Your task to perform on an android device: Look up the book "The Girl on the Train". Image 0: 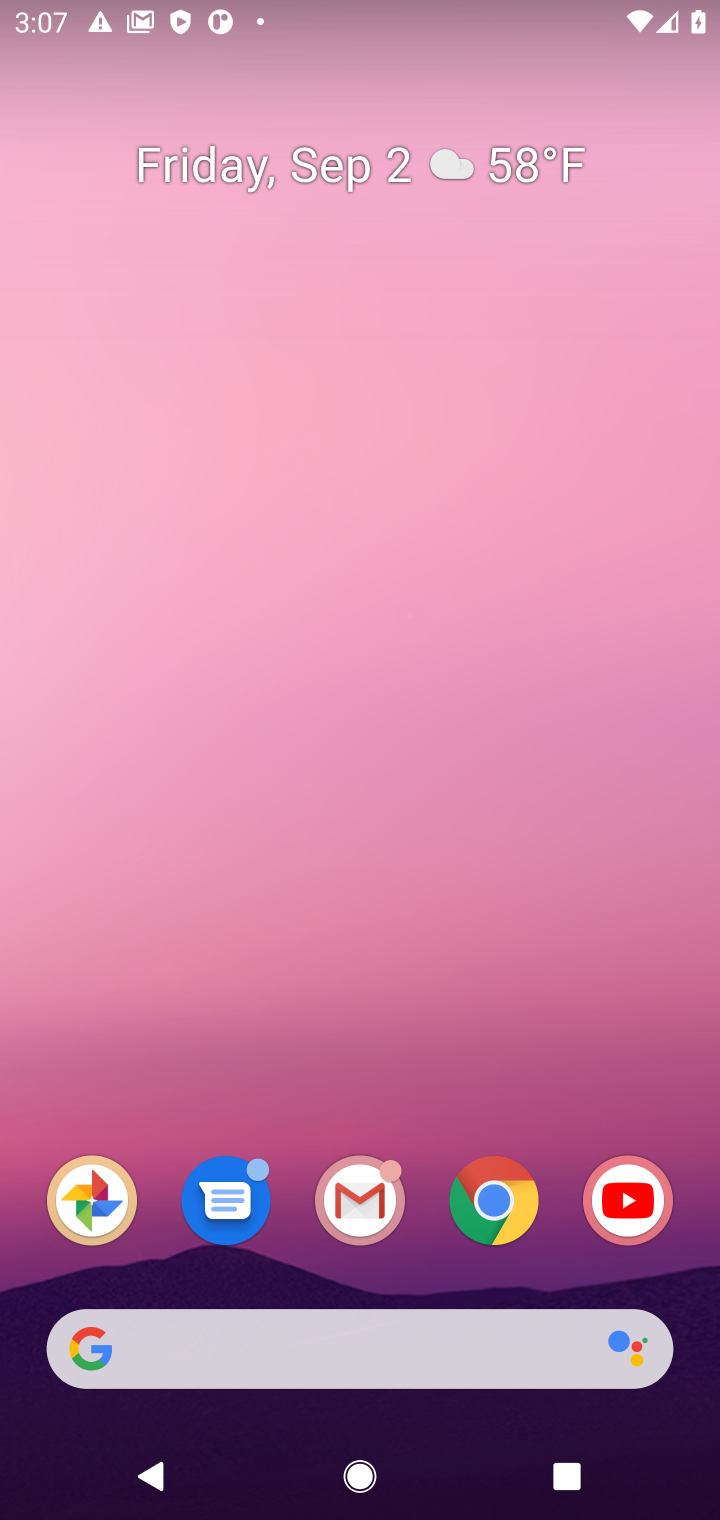
Step 0: click (496, 1212)
Your task to perform on an android device: Look up the book "The Girl on the Train". Image 1: 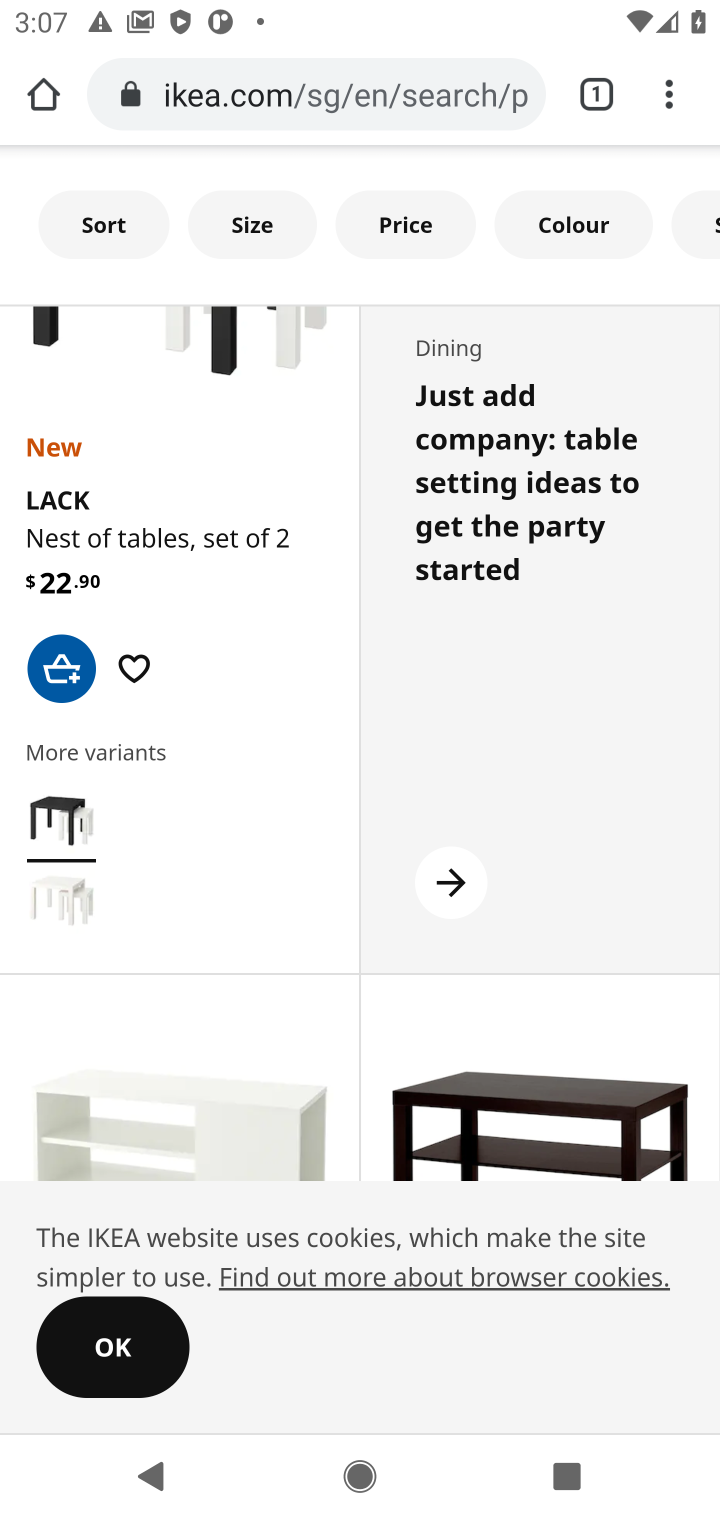
Step 1: click (381, 99)
Your task to perform on an android device: Look up the book "The Girl on the Train". Image 2: 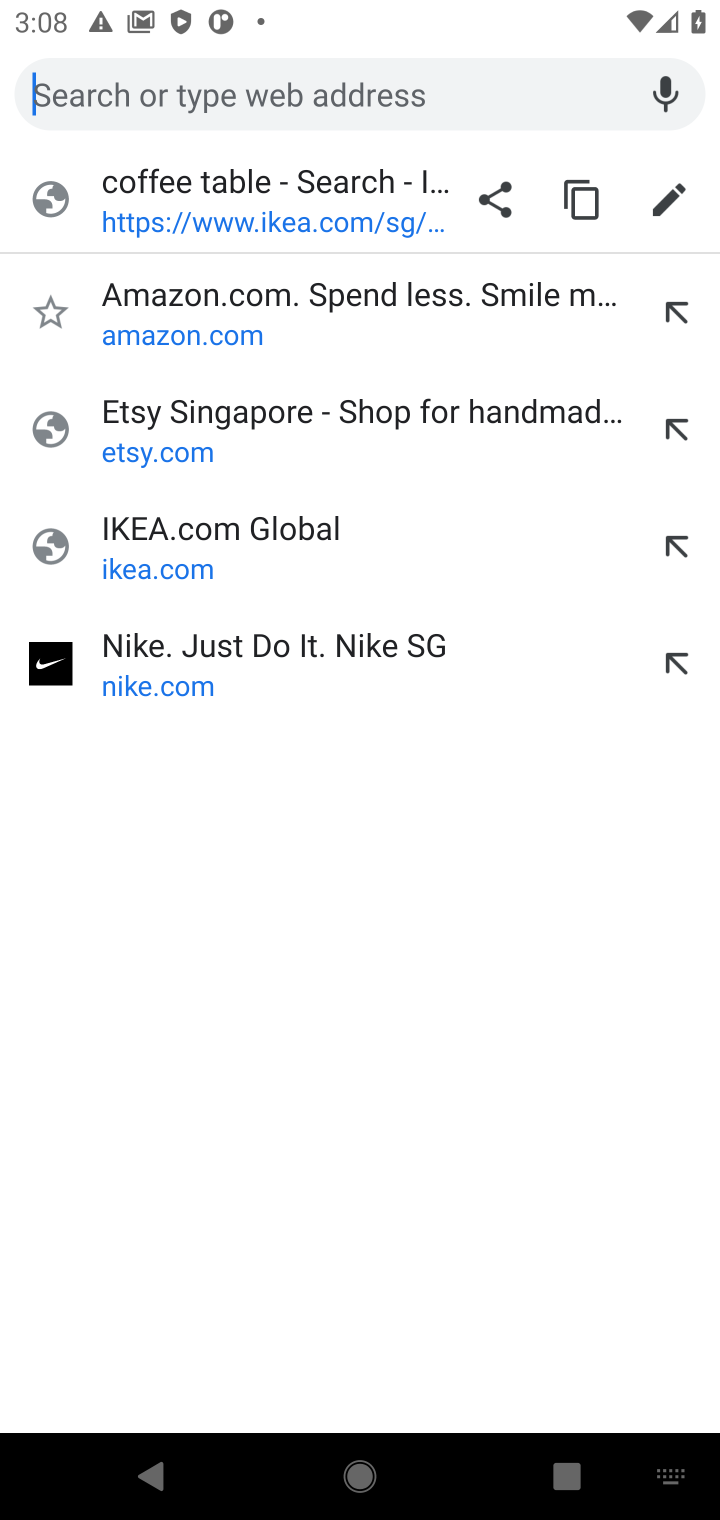
Step 2: type "The Girl on the Train"
Your task to perform on an android device: Look up the book "The Girl on the Train". Image 3: 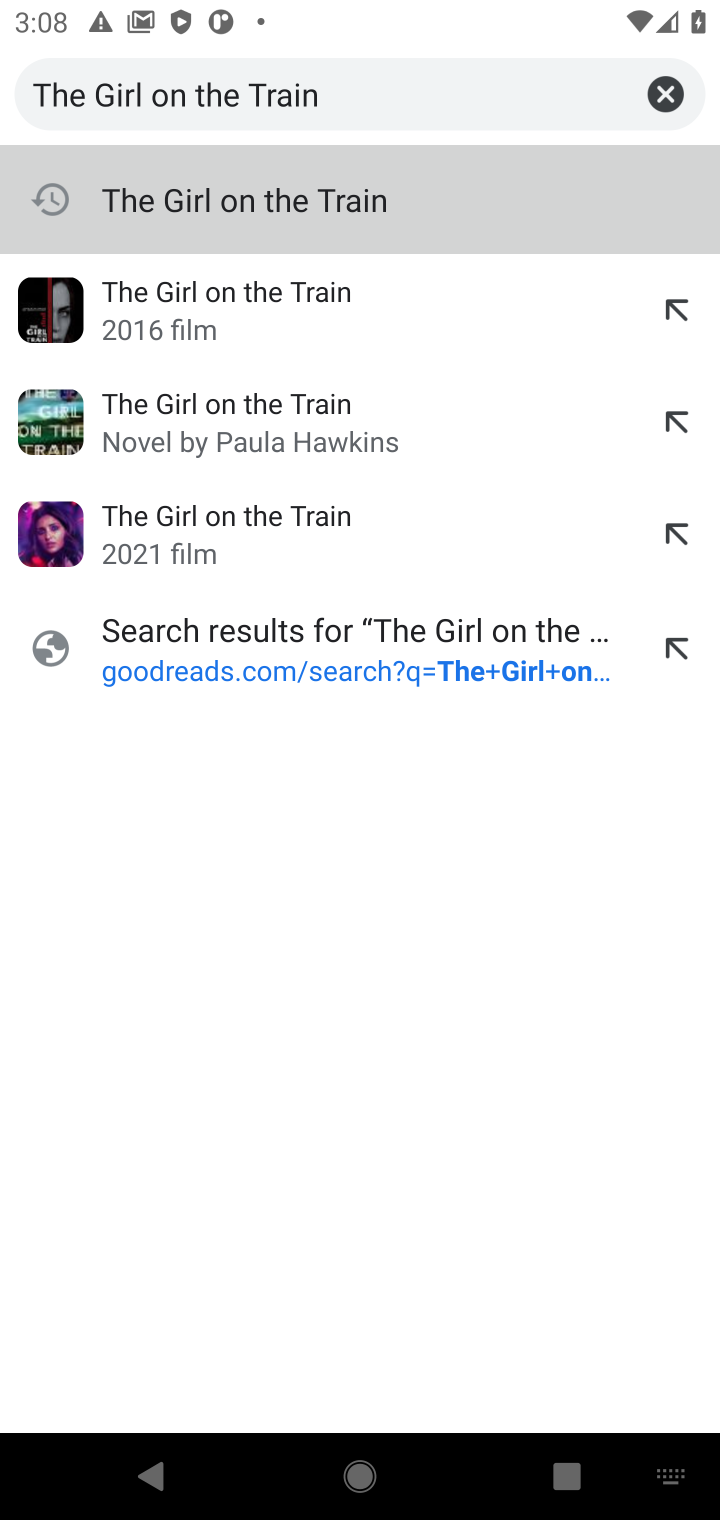
Step 3: press enter
Your task to perform on an android device: Look up the book "The Girl on the Train". Image 4: 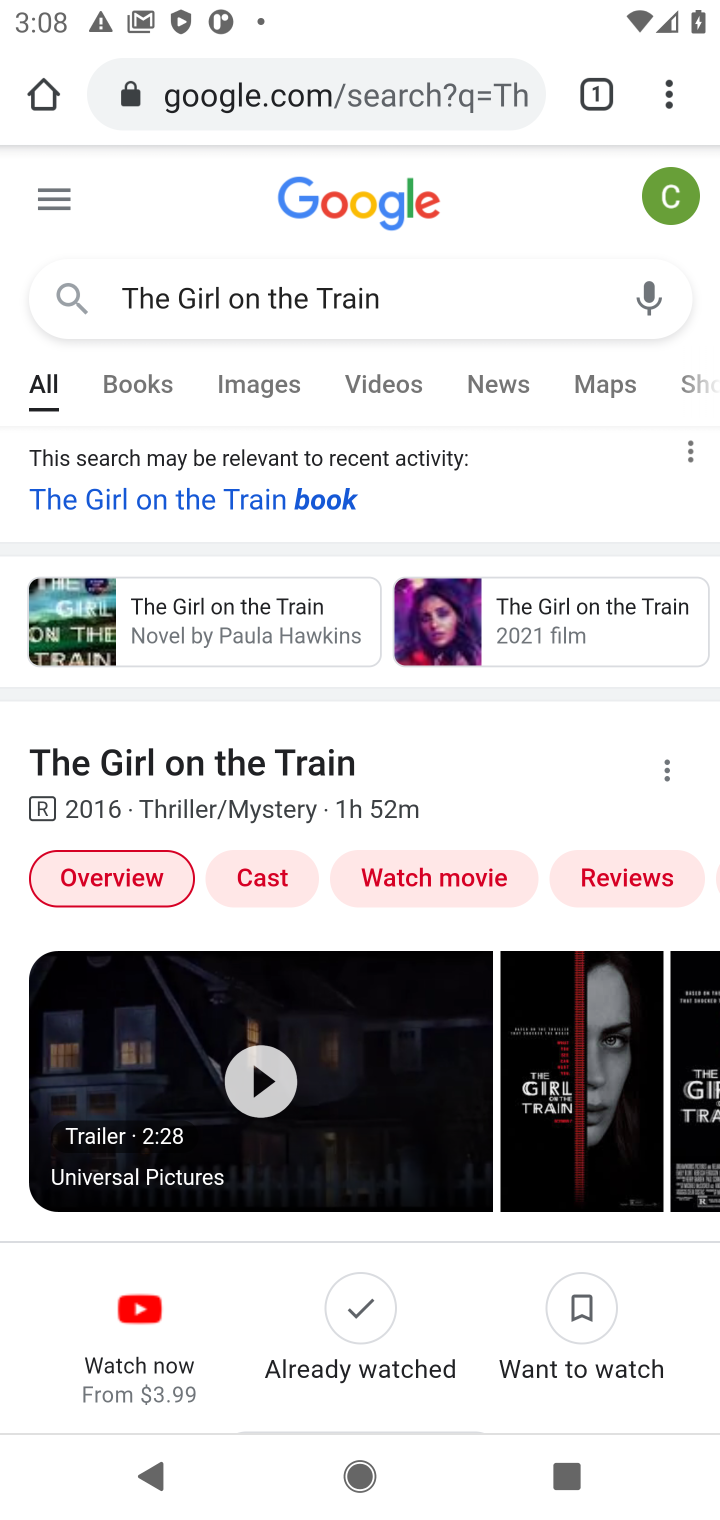
Step 4: drag from (376, 917) to (652, 247)
Your task to perform on an android device: Look up the book "The Girl on the Train". Image 5: 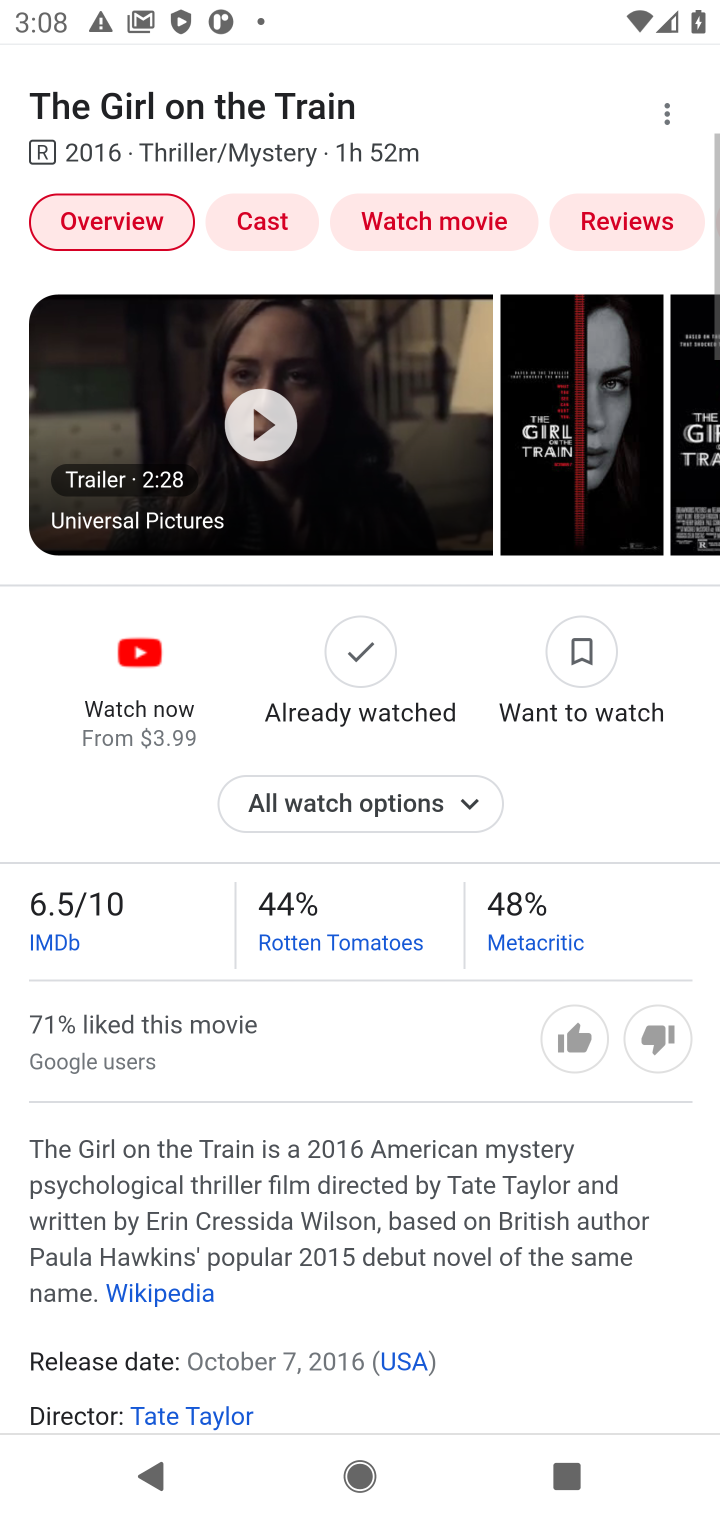
Step 5: drag from (202, 1239) to (571, 410)
Your task to perform on an android device: Look up the book "The Girl on the Train". Image 6: 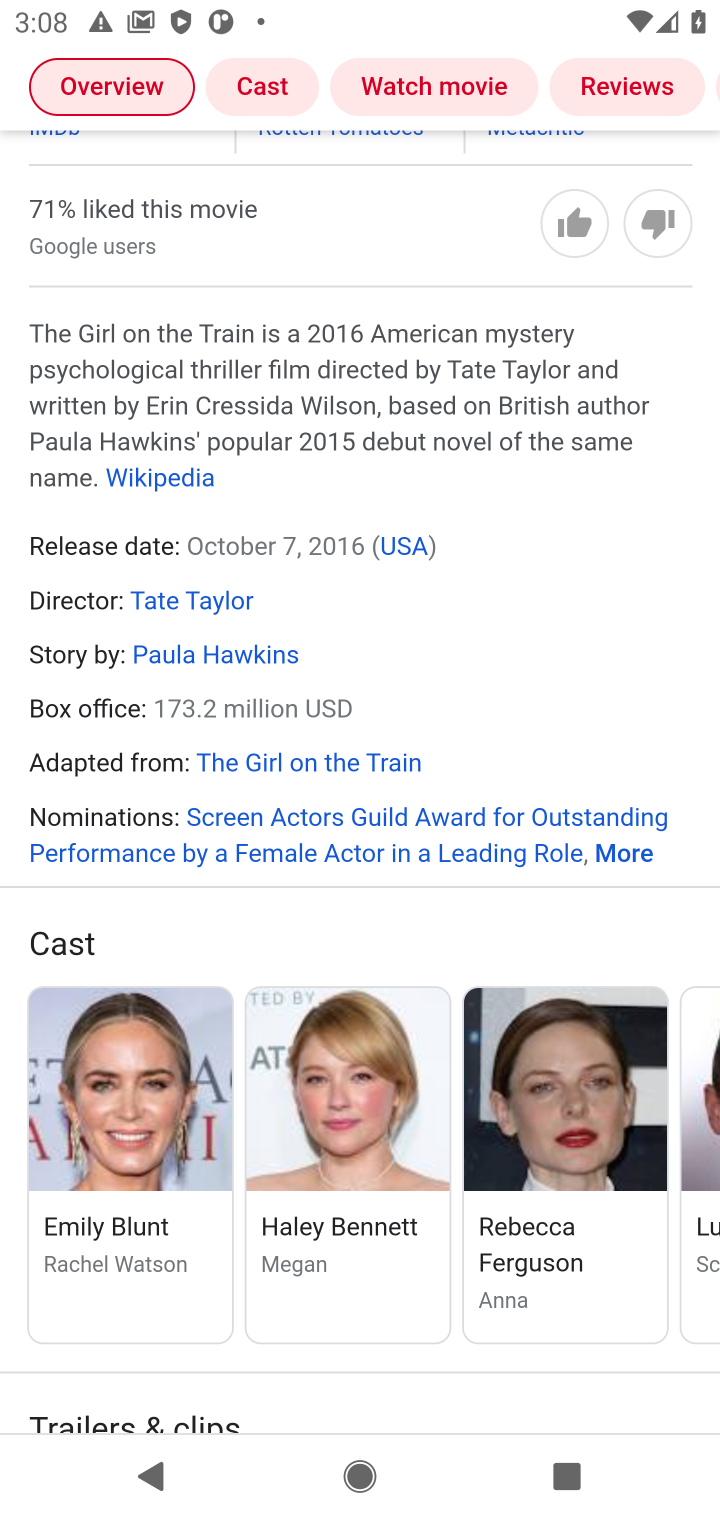
Step 6: drag from (204, 1098) to (610, 241)
Your task to perform on an android device: Look up the book "The Girl on the Train". Image 7: 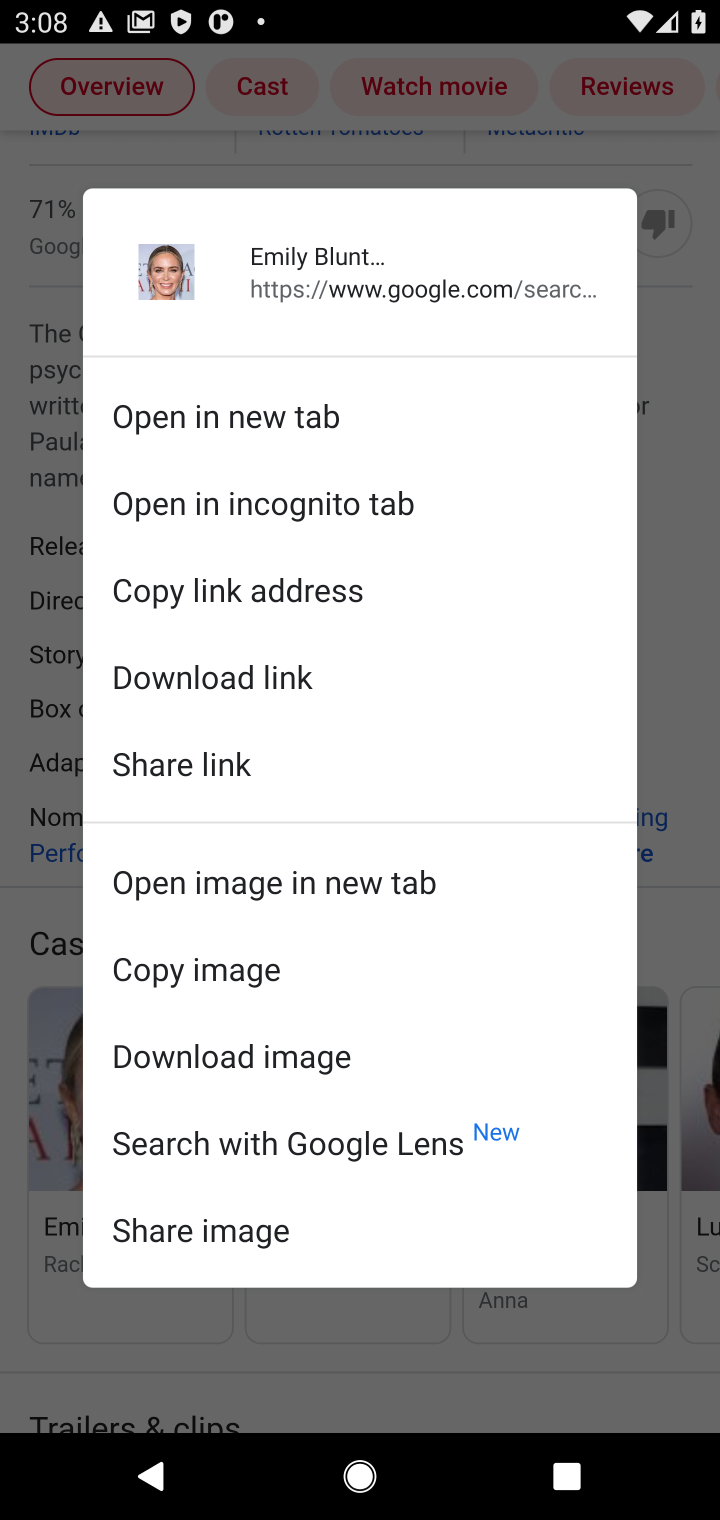
Step 7: click (675, 904)
Your task to perform on an android device: Look up the book "The Girl on the Train". Image 8: 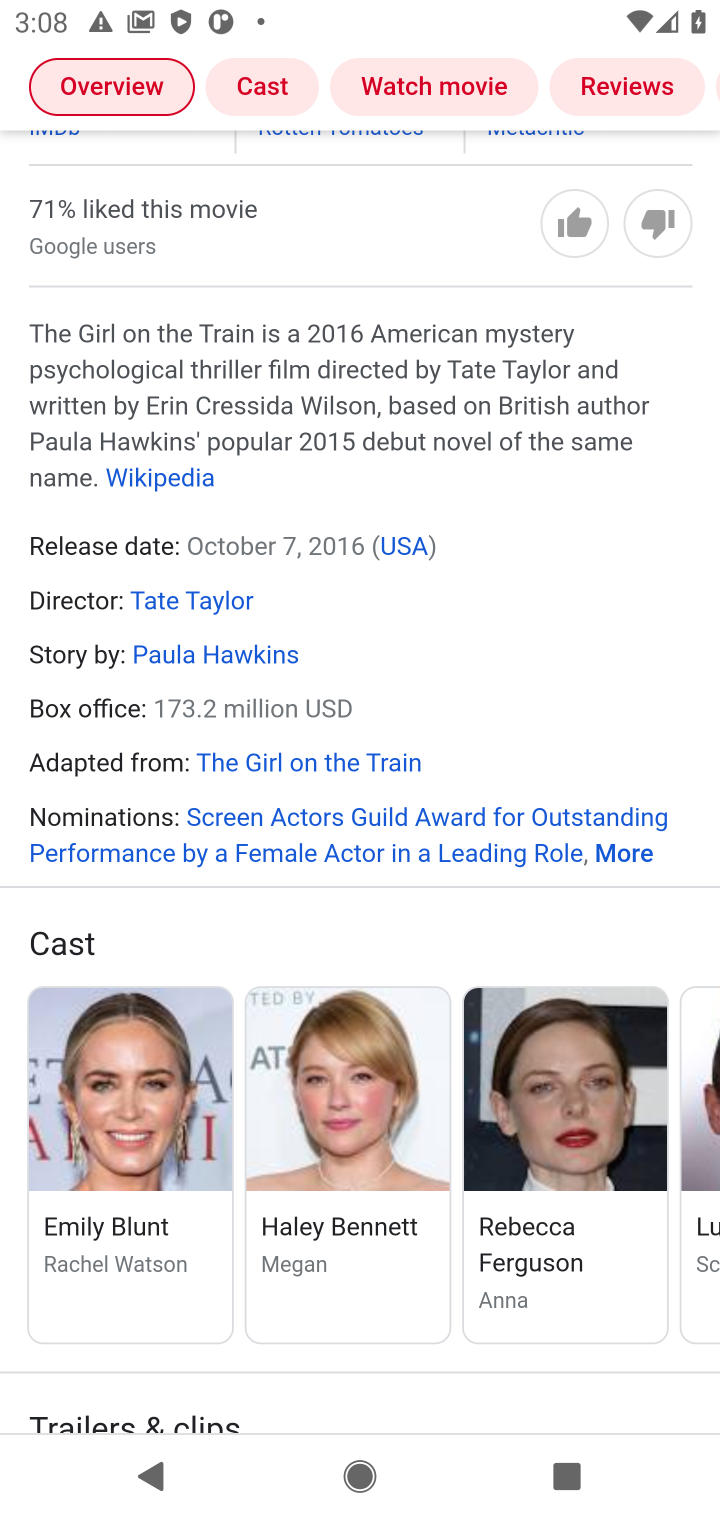
Step 8: task complete